Your task to perform on an android device: Open Chrome and go to settings Image 0: 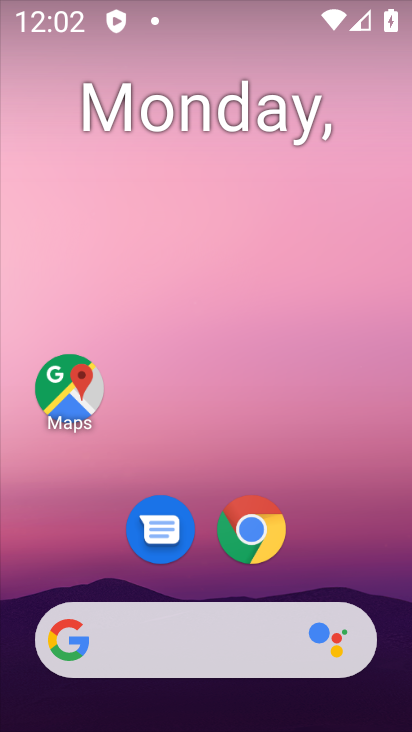
Step 0: click (245, 530)
Your task to perform on an android device: Open Chrome and go to settings Image 1: 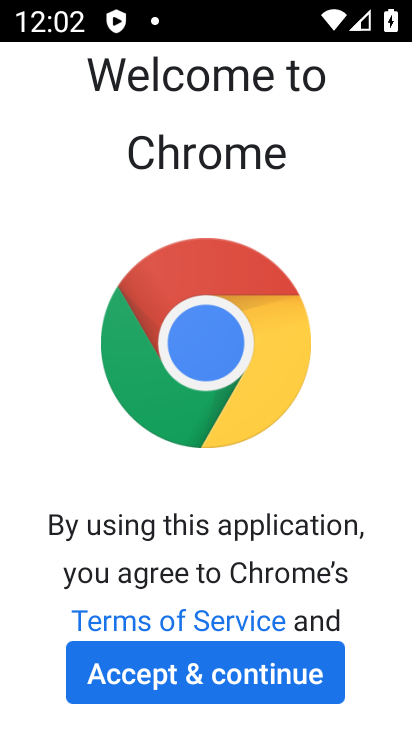
Step 1: click (197, 671)
Your task to perform on an android device: Open Chrome and go to settings Image 2: 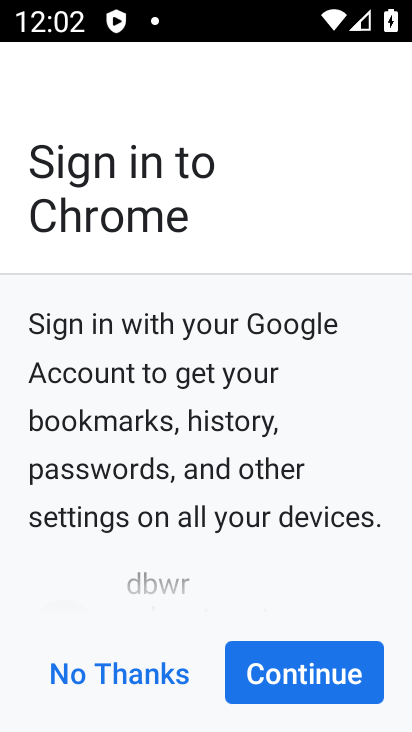
Step 2: click (262, 681)
Your task to perform on an android device: Open Chrome and go to settings Image 3: 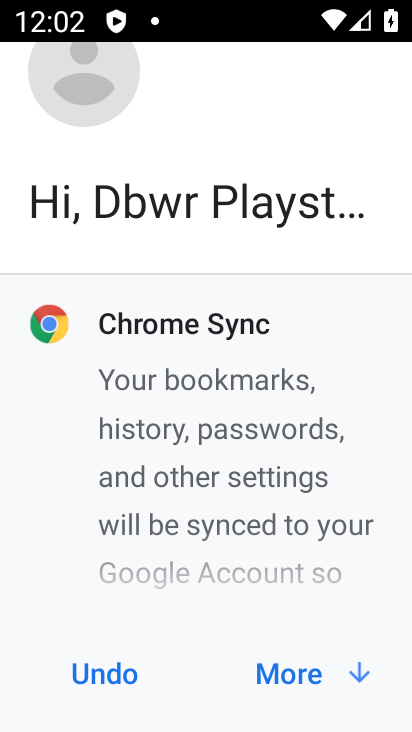
Step 3: click (262, 681)
Your task to perform on an android device: Open Chrome and go to settings Image 4: 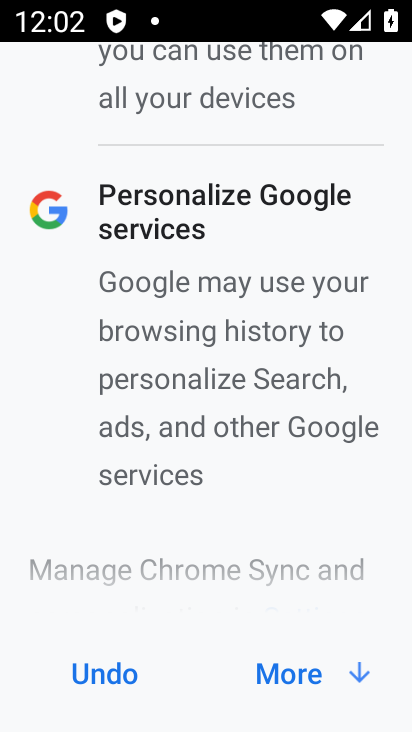
Step 4: click (296, 667)
Your task to perform on an android device: Open Chrome and go to settings Image 5: 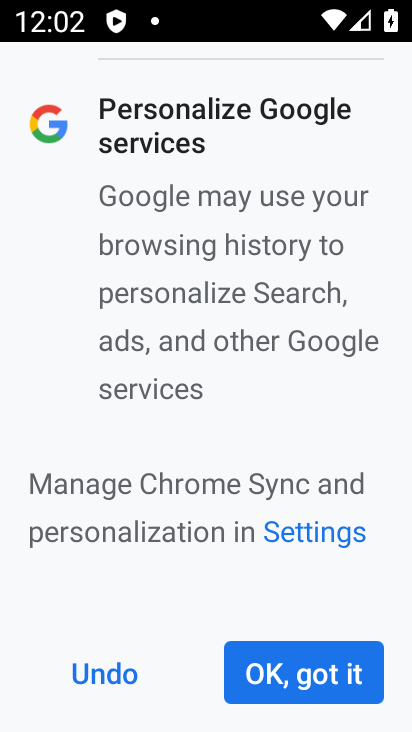
Step 5: click (296, 667)
Your task to perform on an android device: Open Chrome and go to settings Image 6: 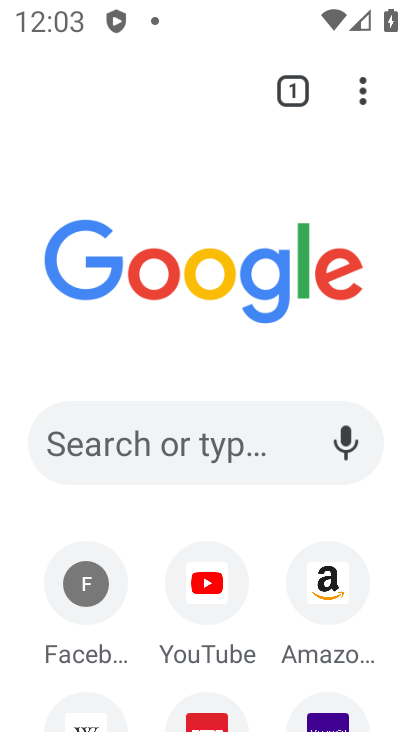
Step 6: task complete